Your task to perform on an android device: Show the shopping cart on target.com. Add macbook to the cart on target.com, then select checkout. Image 0: 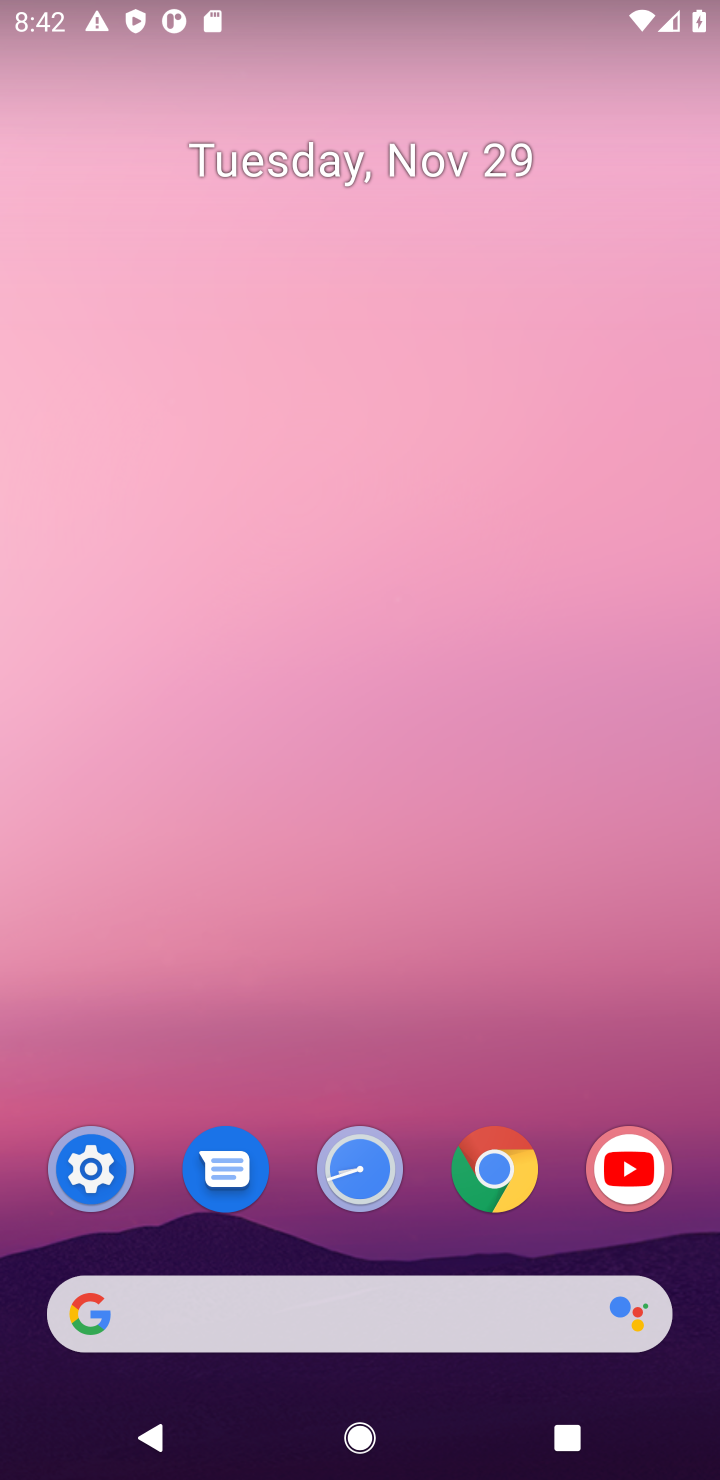
Step 0: click (386, 1337)
Your task to perform on an android device: Show the shopping cart on target.com. Add macbook to the cart on target.com, then select checkout. Image 1: 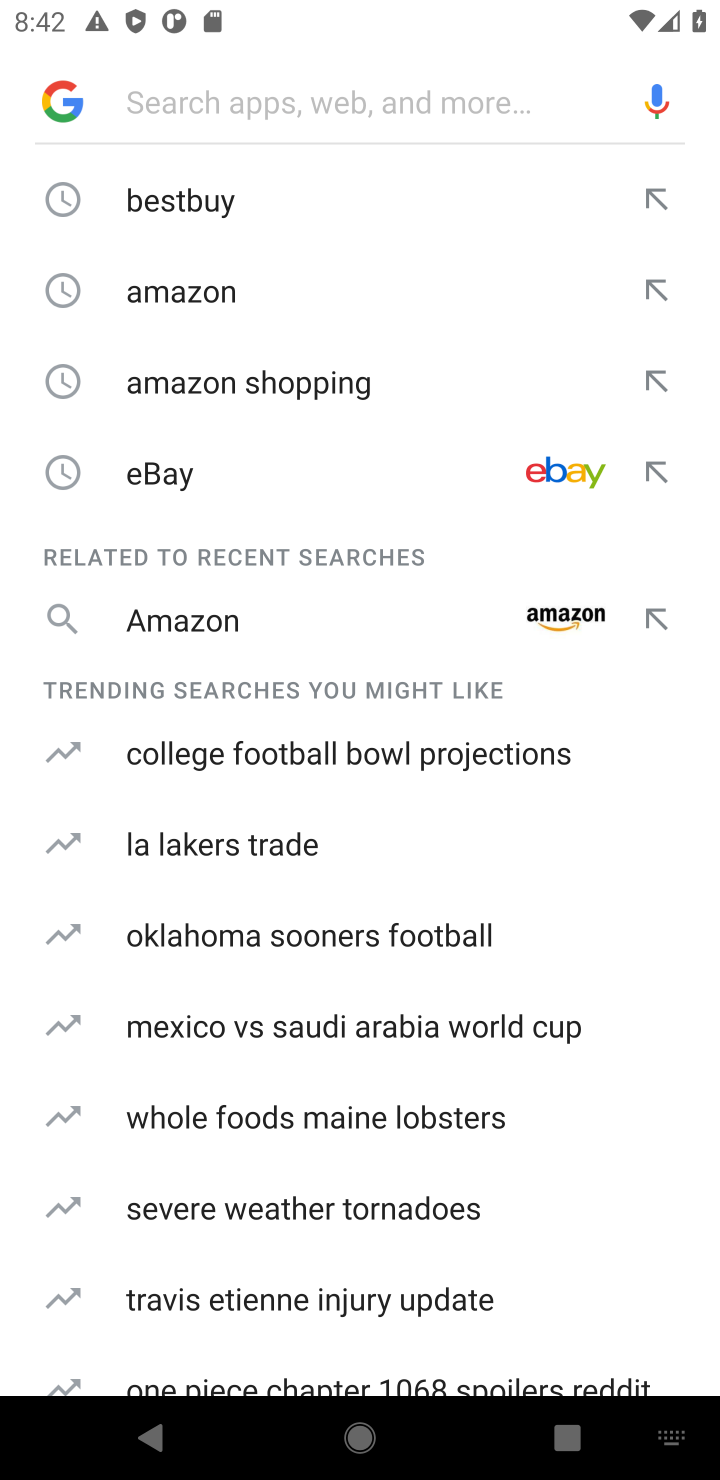
Step 1: type "target"
Your task to perform on an android device: Show the shopping cart on target.com. Add macbook to the cart on target.com, then select checkout. Image 2: 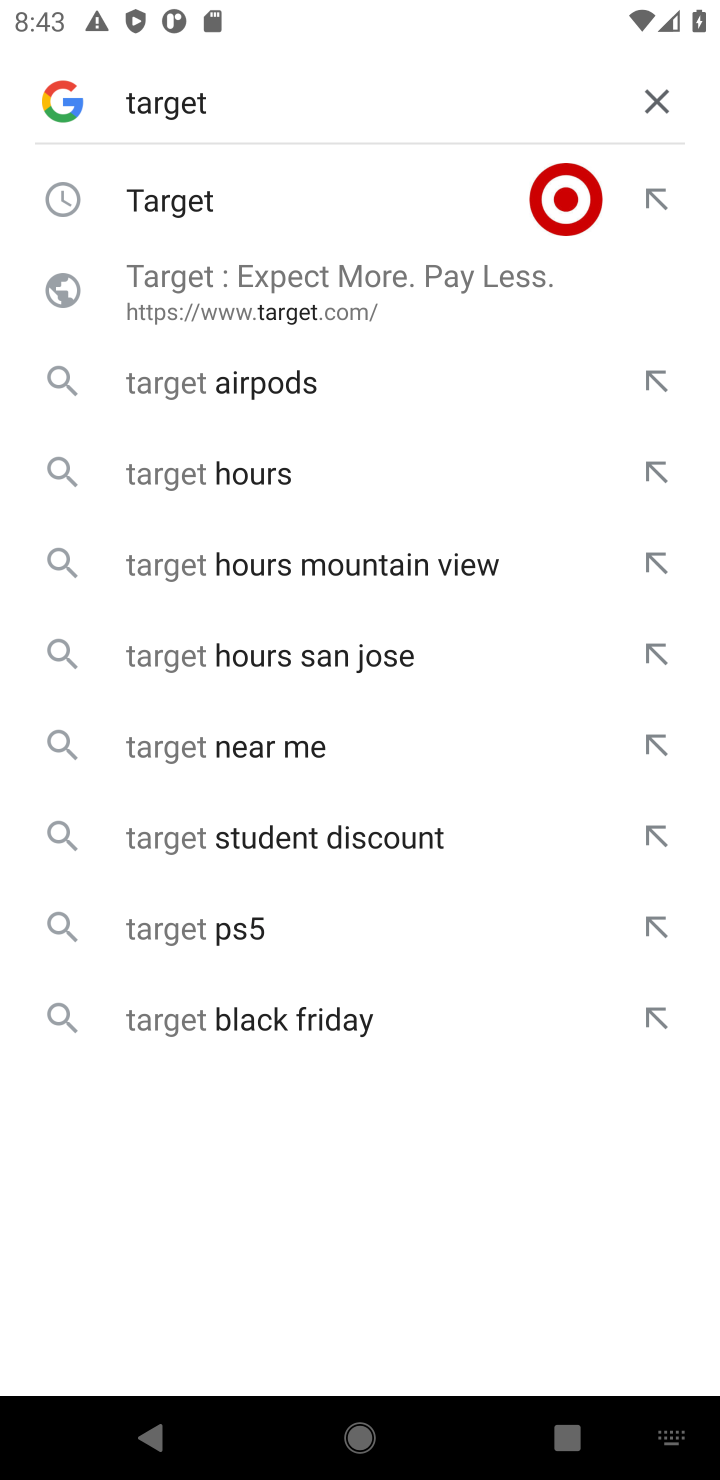
Step 2: click (262, 219)
Your task to perform on an android device: Show the shopping cart on target.com. Add macbook to the cart on target.com, then select checkout. Image 3: 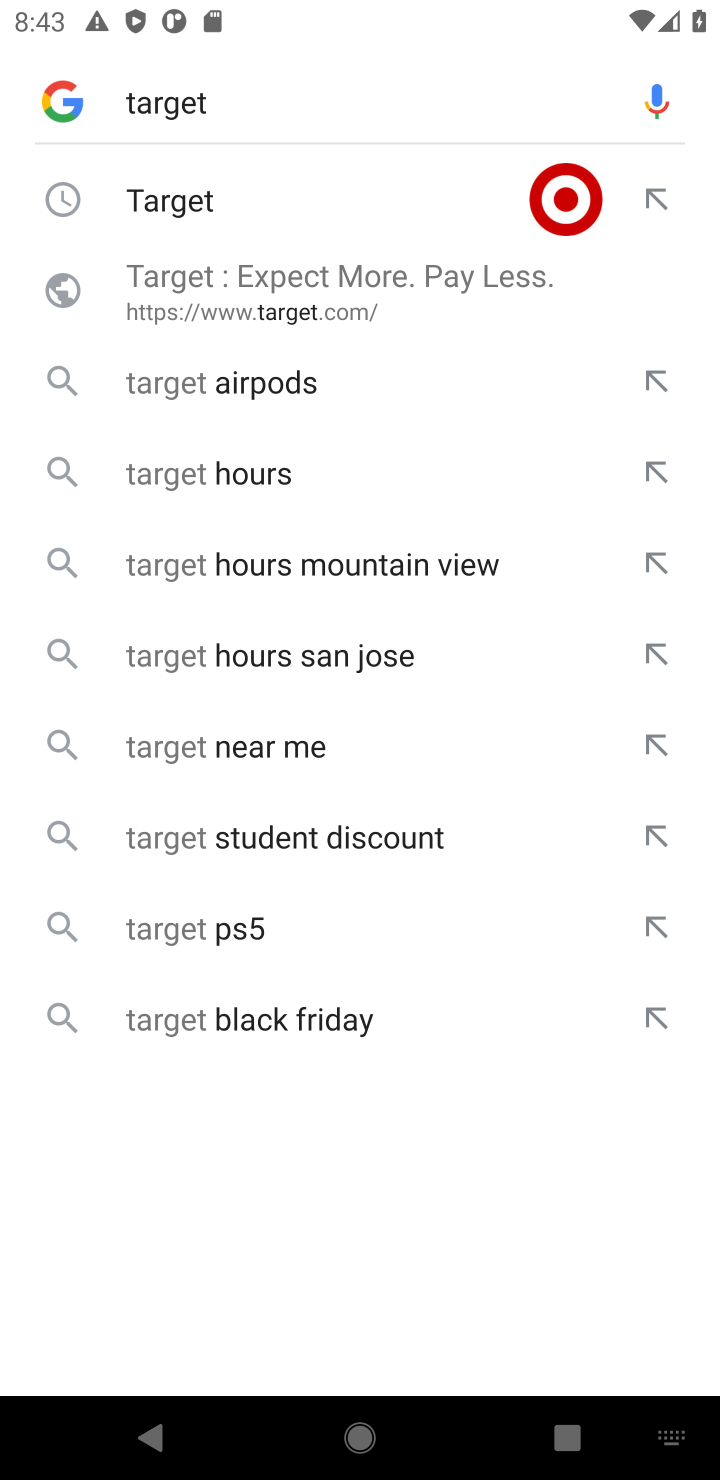
Step 3: task complete